Your task to perform on an android device: Do I have any events tomorrow? Image 0: 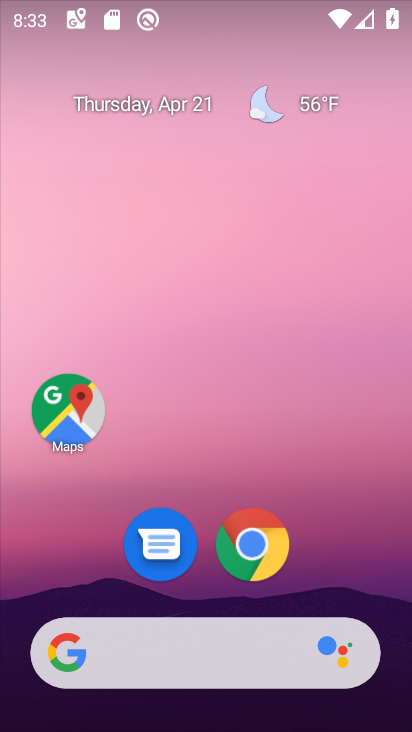
Step 0: drag from (216, 727) to (192, 163)
Your task to perform on an android device: Do I have any events tomorrow? Image 1: 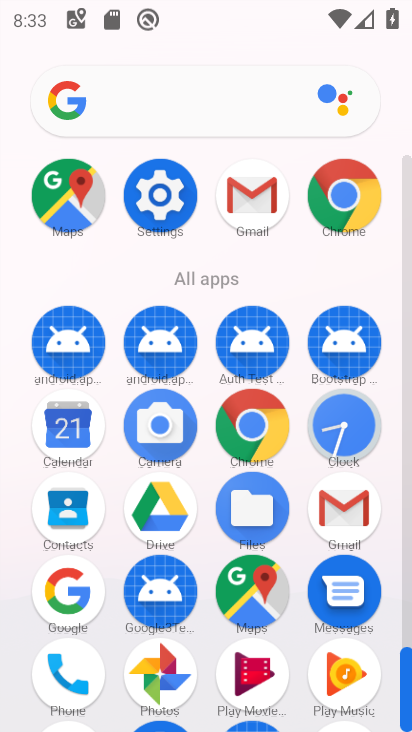
Step 1: click (67, 438)
Your task to perform on an android device: Do I have any events tomorrow? Image 2: 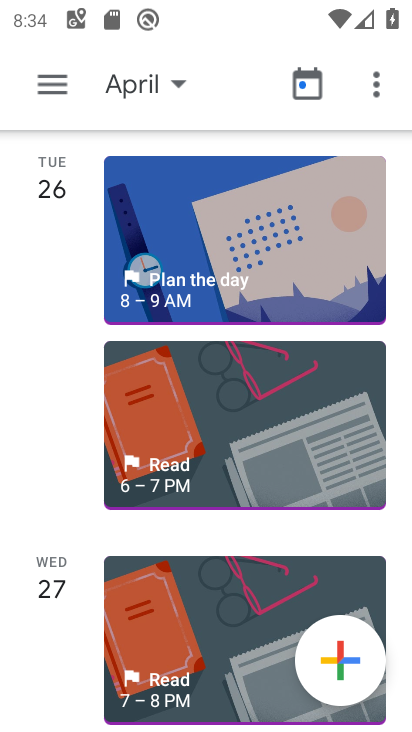
Step 2: click (132, 84)
Your task to perform on an android device: Do I have any events tomorrow? Image 3: 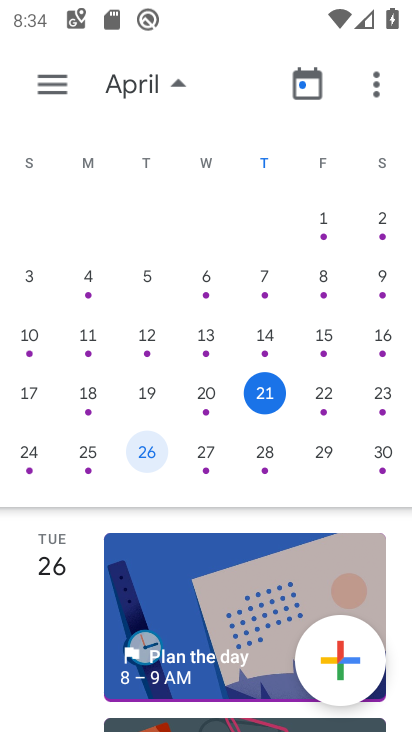
Step 3: click (265, 390)
Your task to perform on an android device: Do I have any events tomorrow? Image 4: 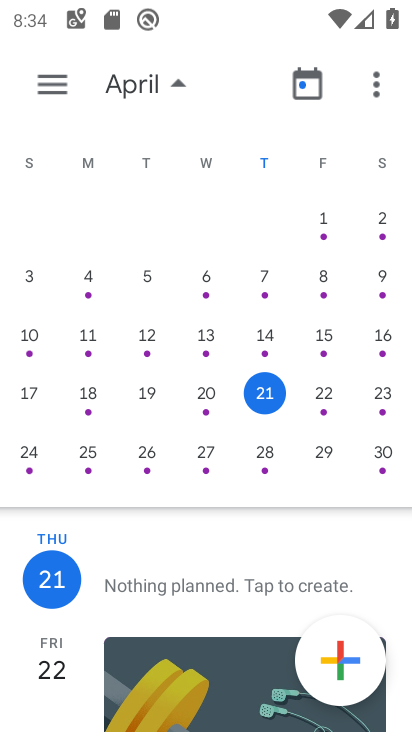
Step 4: task complete